Your task to perform on an android device: What's on my calendar today? Image 0: 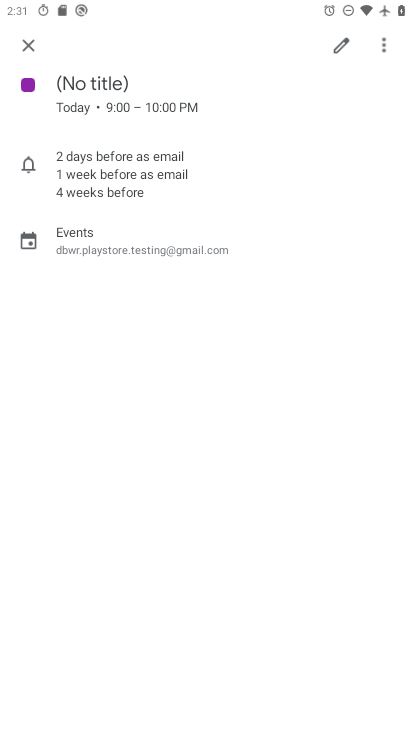
Step 0: press home button
Your task to perform on an android device: What's on my calendar today? Image 1: 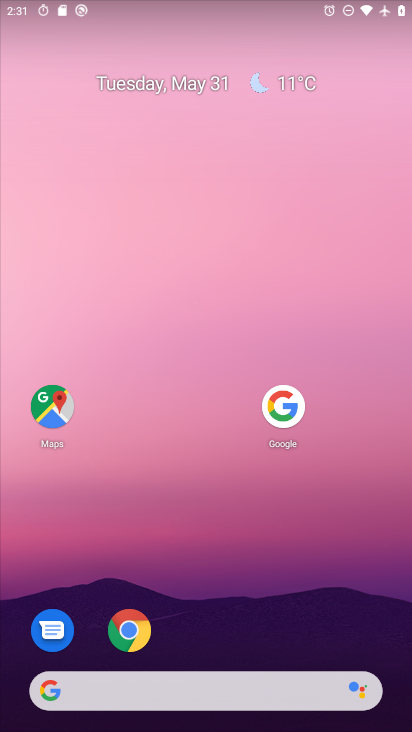
Step 1: drag from (138, 680) to (285, 97)
Your task to perform on an android device: What's on my calendar today? Image 2: 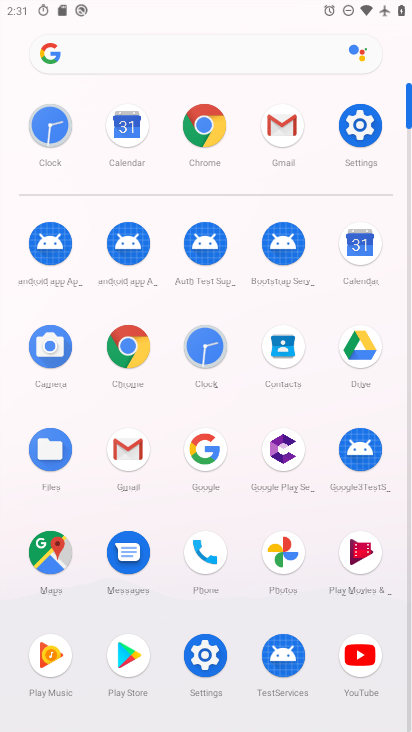
Step 2: click (361, 252)
Your task to perform on an android device: What's on my calendar today? Image 3: 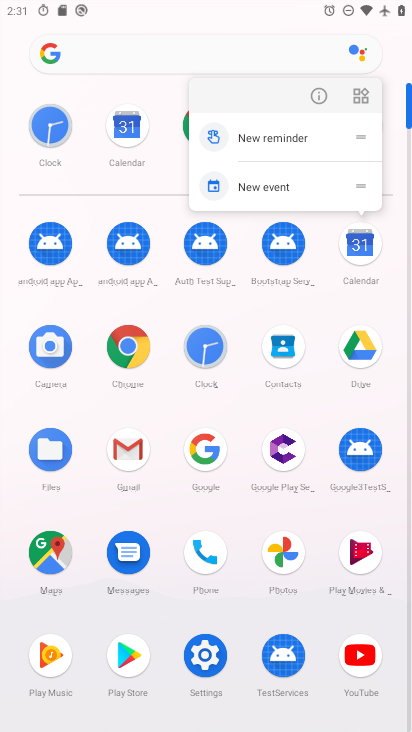
Step 3: click (355, 252)
Your task to perform on an android device: What's on my calendar today? Image 4: 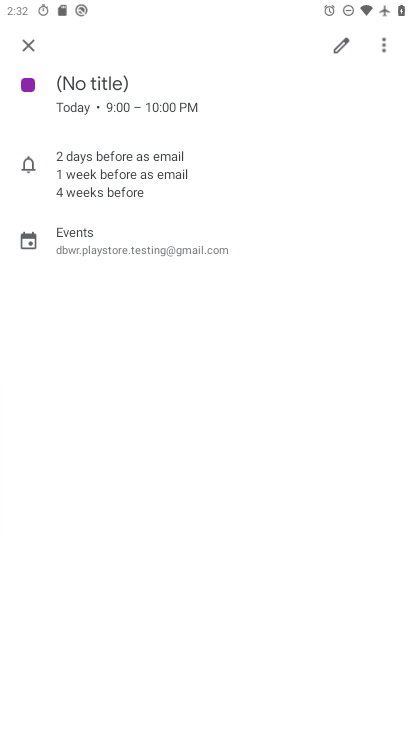
Step 4: click (31, 40)
Your task to perform on an android device: What's on my calendar today? Image 5: 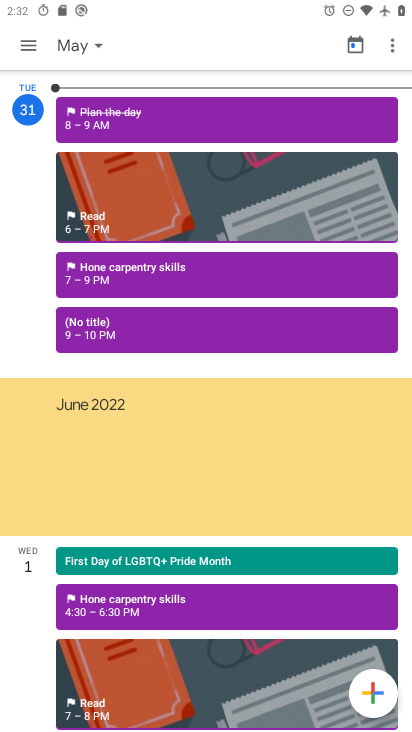
Step 5: task complete